Your task to perform on an android device: Is it going to rain tomorrow? Image 0: 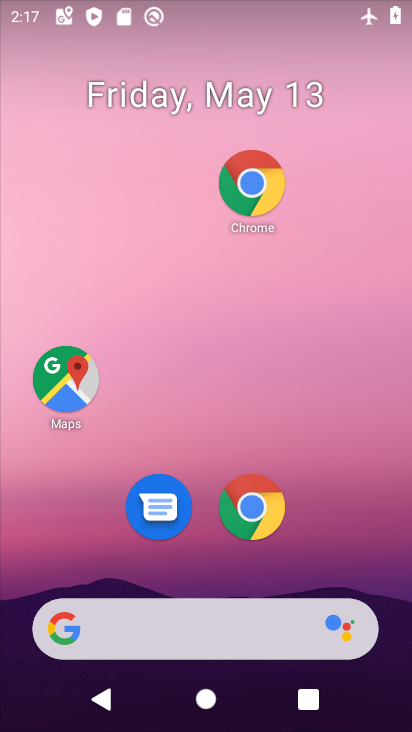
Step 0: click (224, 155)
Your task to perform on an android device: Is it going to rain tomorrow? Image 1: 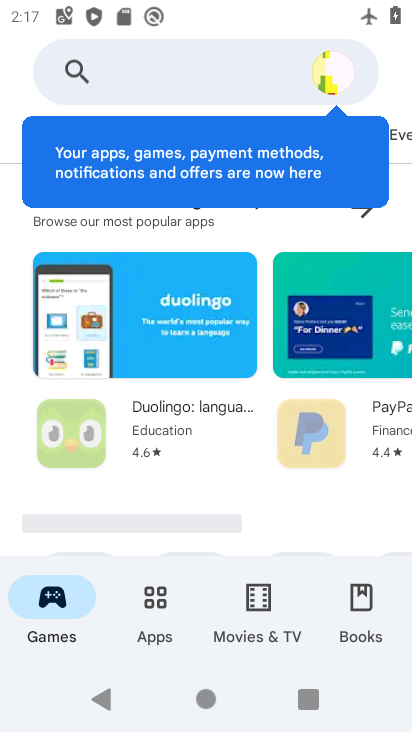
Step 1: press back button
Your task to perform on an android device: Is it going to rain tomorrow? Image 2: 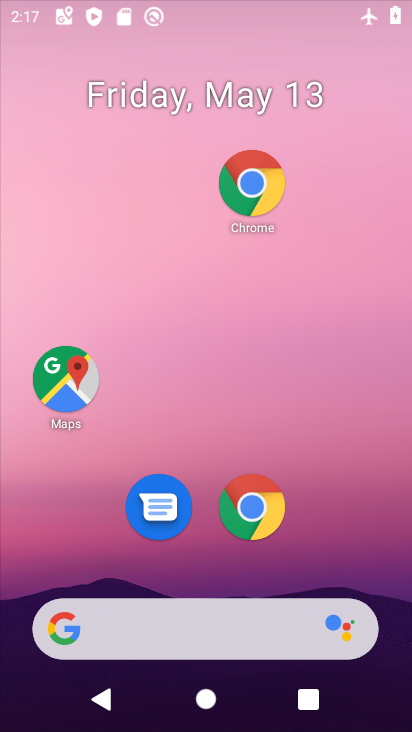
Step 2: press home button
Your task to perform on an android device: Is it going to rain tomorrow? Image 3: 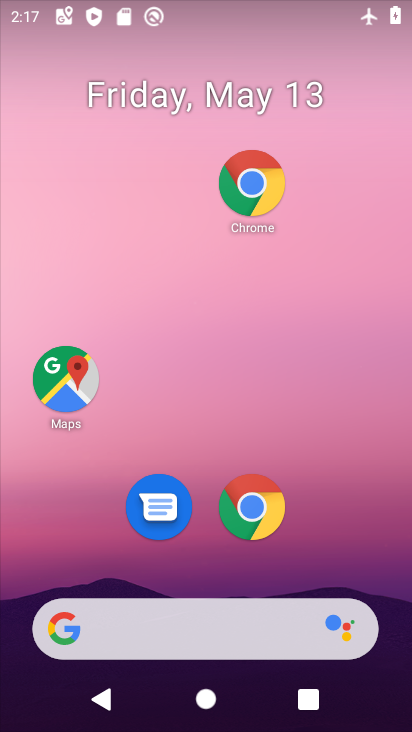
Step 3: drag from (14, 163) to (360, 459)
Your task to perform on an android device: Is it going to rain tomorrow? Image 4: 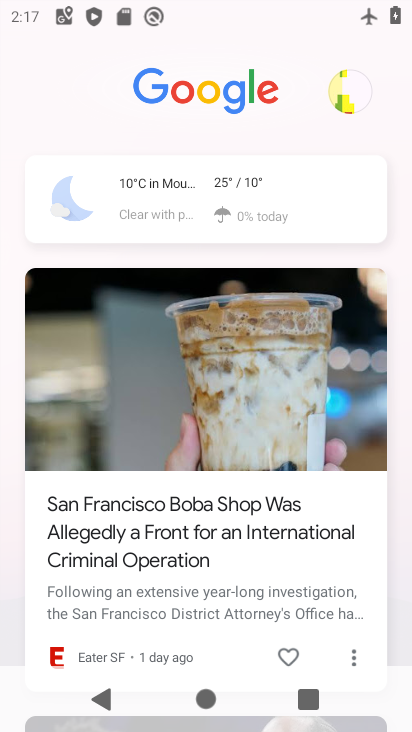
Step 4: click (159, 195)
Your task to perform on an android device: Is it going to rain tomorrow? Image 5: 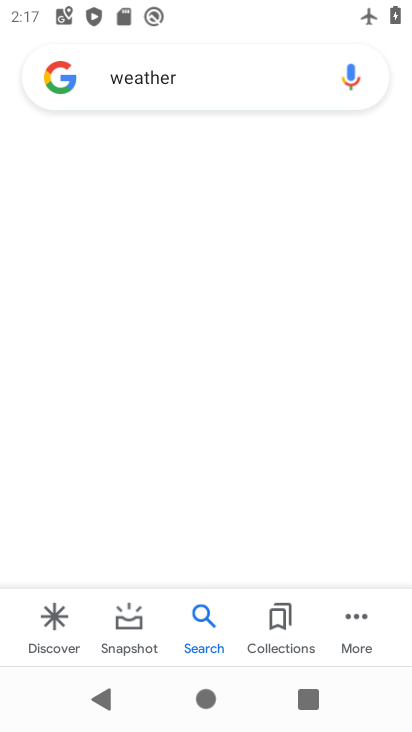
Step 5: click (159, 195)
Your task to perform on an android device: Is it going to rain tomorrow? Image 6: 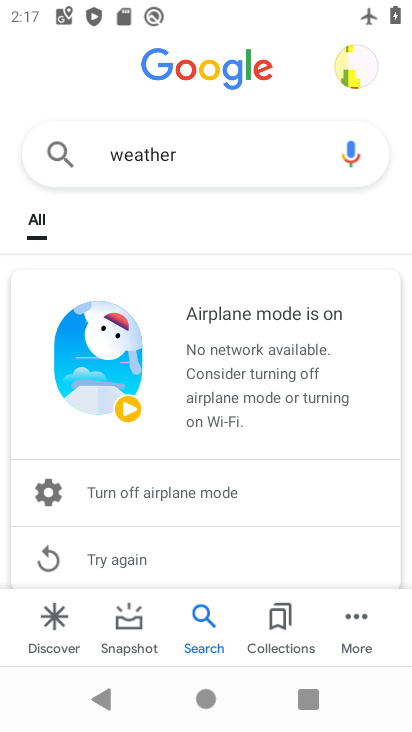
Step 6: task complete